Your task to perform on an android device: Open the stopwatch Image 0: 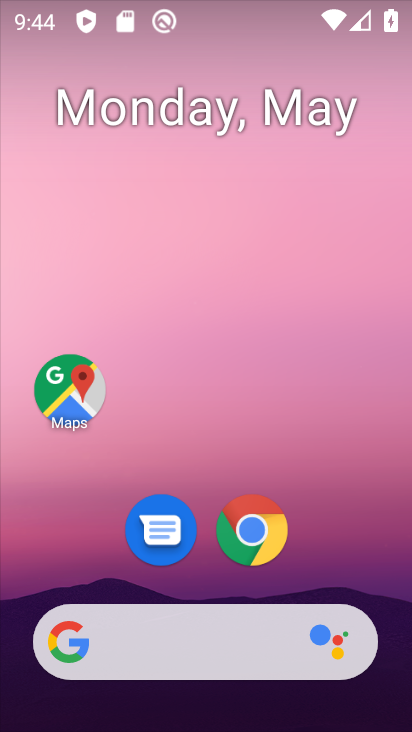
Step 0: drag from (289, 564) to (313, 79)
Your task to perform on an android device: Open the stopwatch Image 1: 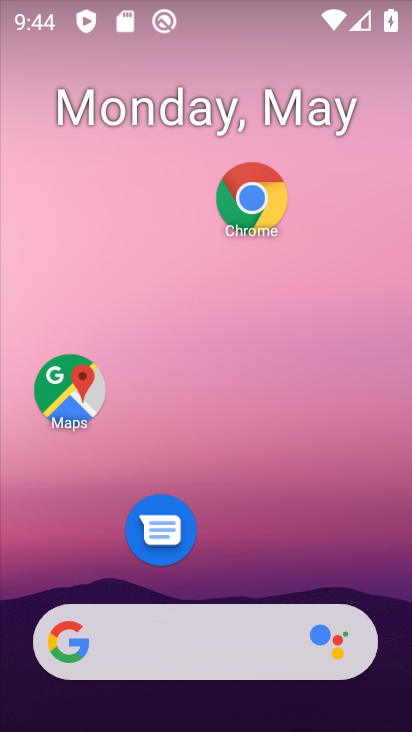
Step 1: drag from (226, 559) to (295, 70)
Your task to perform on an android device: Open the stopwatch Image 2: 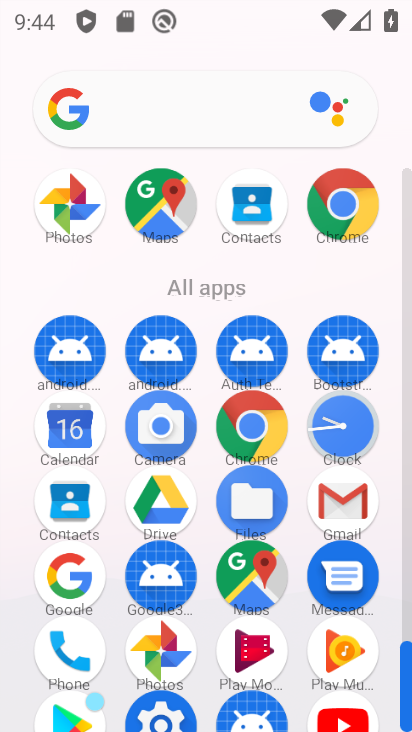
Step 2: press home button
Your task to perform on an android device: Open the stopwatch Image 3: 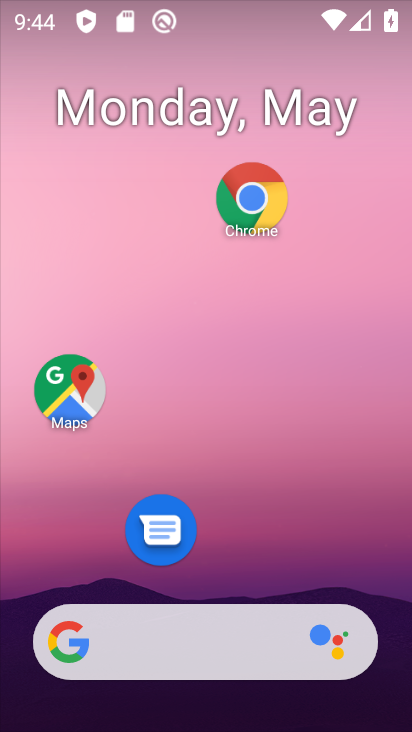
Step 3: drag from (297, 142) to (300, 104)
Your task to perform on an android device: Open the stopwatch Image 4: 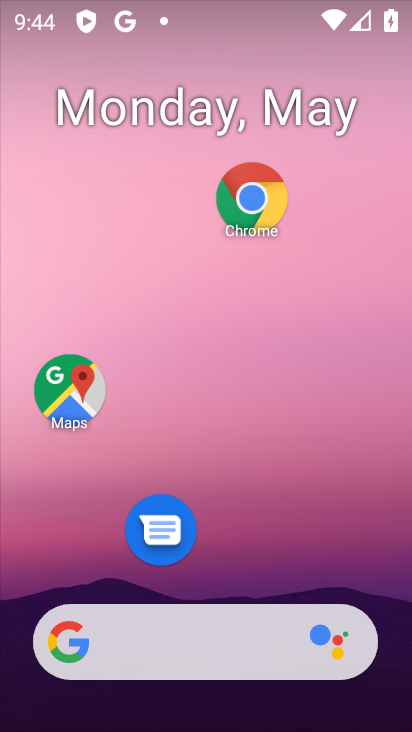
Step 4: drag from (232, 458) to (250, 34)
Your task to perform on an android device: Open the stopwatch Image 5: 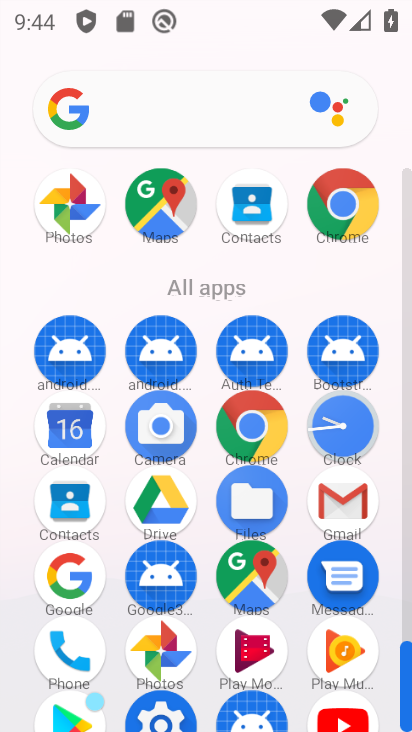
Step 5: click (358, 448)
Your task to perform on an android device: Open the stopwatch Image 6: 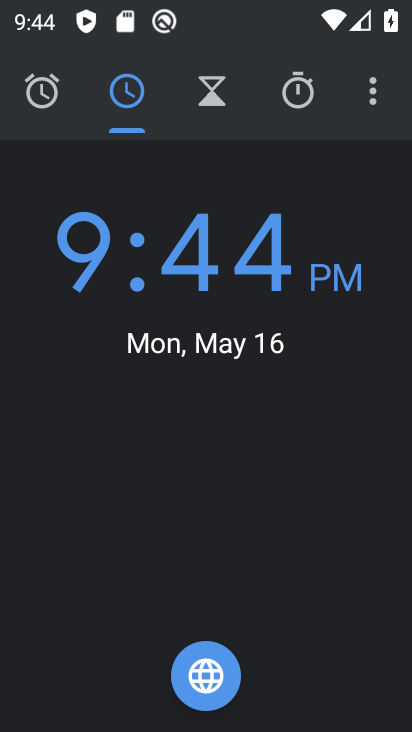
Step 6: click (205, 105)
Your task to perform on an android device: Open the stopwatch Image 7: 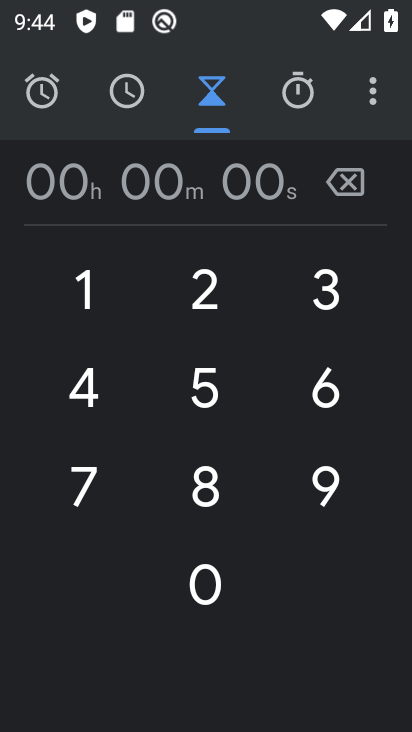
Step 7: click (303, 86)
Your task to perform on an android device: Open the stopwatch Image 8: 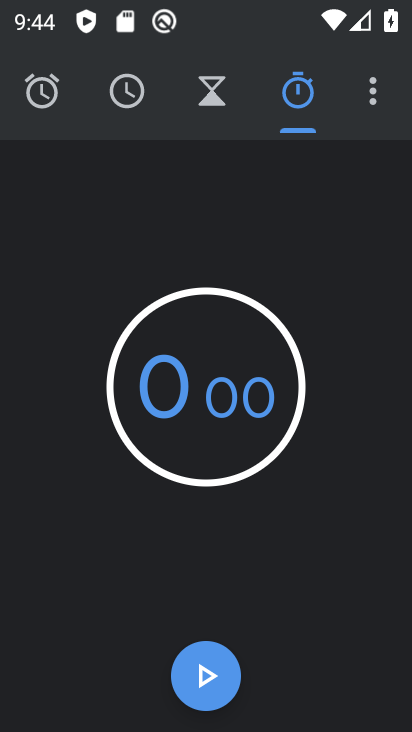
Step 8: task complete